Your task to perform on an android device: Open Google Chrome Image 0: 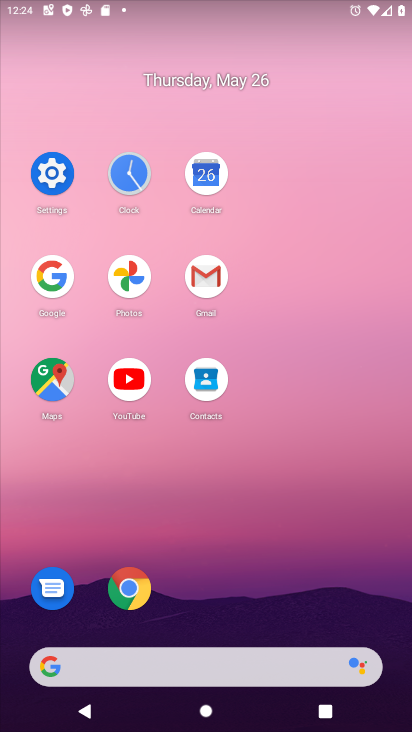
Step 0: click (129, 589)
Your task to perform on an android device: Open Google Chrome Image 1: 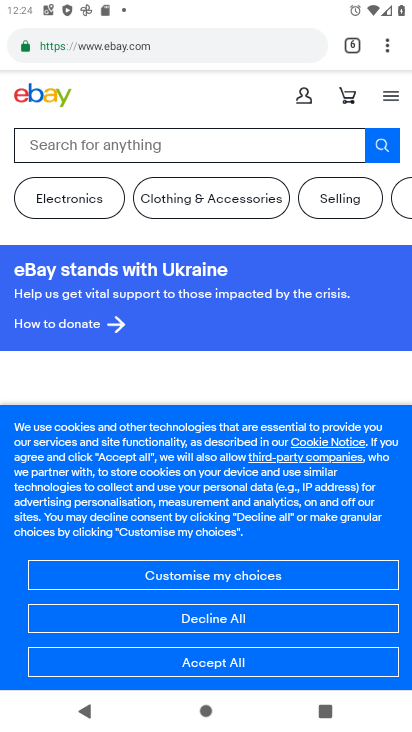
Step 1: task complete